Your task to perform on an android device: Open Google Maps and go to "Timeline" Image 0: 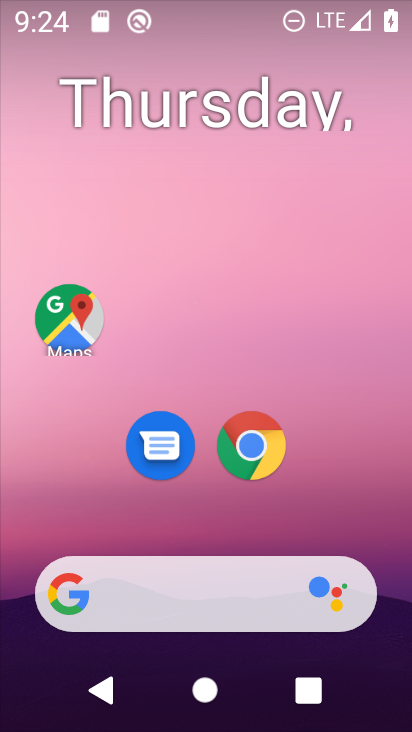
Step 0: drag from (402, 597) to (354, 122)
Your task to perform on an android device: Open Google Maps and go to "Timeline" Image 1: 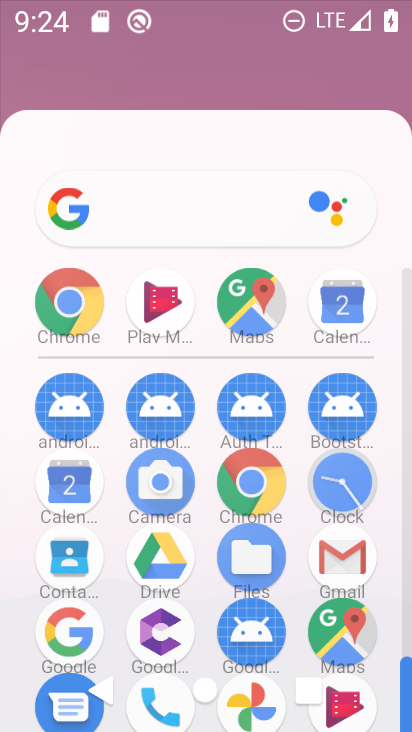
Step 1: click (329, 58)
Your task to perform on an android device: Open Google Maps and go to "Timeline" Image 2: 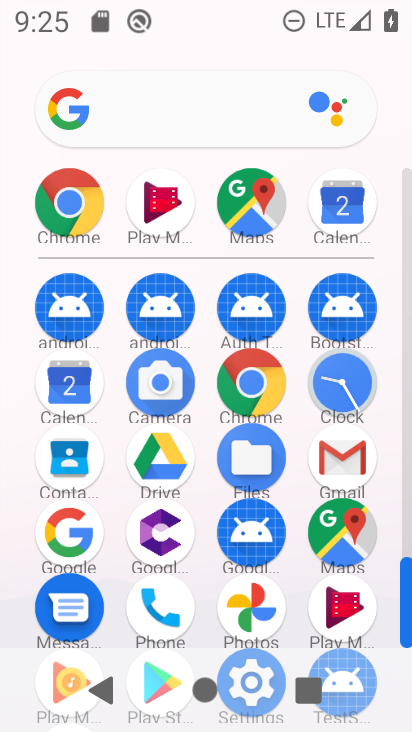
Step 2: click (348, 533)
Your task to perform on an android device: Open Google Maps and go to "Timeline" Image 3: 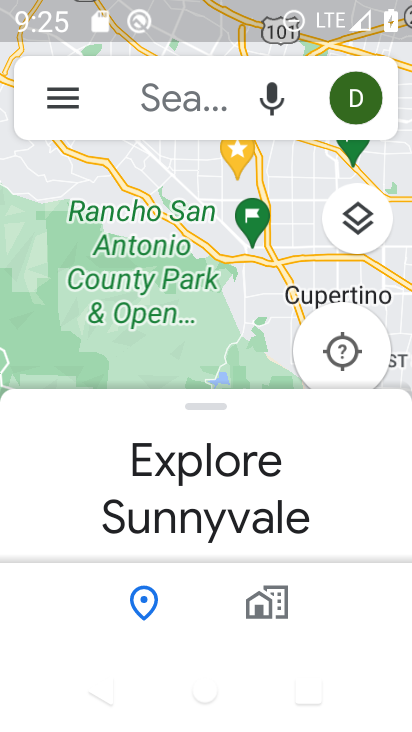
Step 3: click (60, 110)
Your task to perform on an android device: Open Google Maps and go to "Timeline" Image 4: 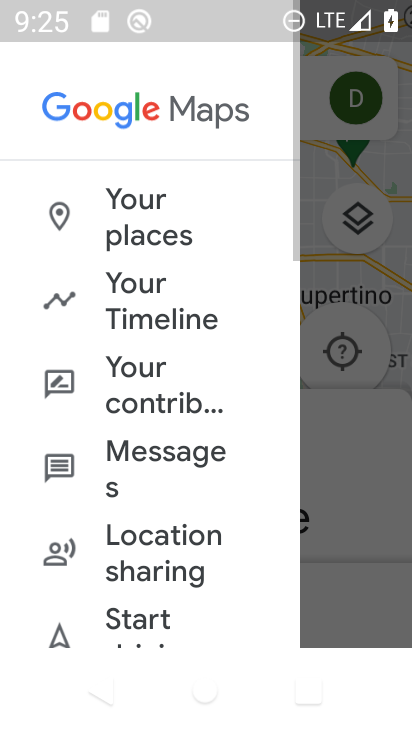
Step 4: click (156, 291)
Your task to perform on an android device: Open Google Maps and go to "Timeline" Image 5: 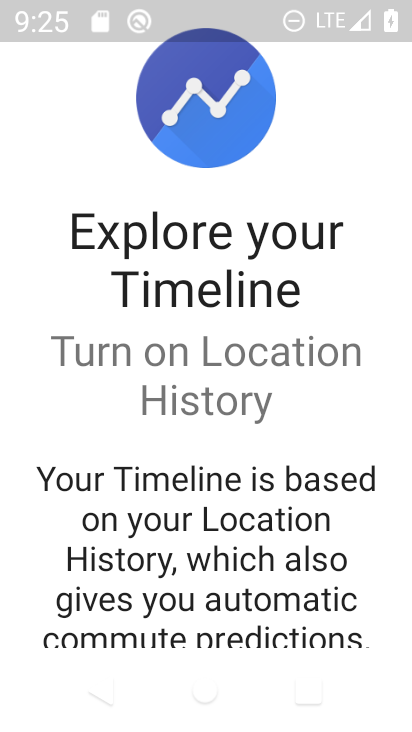
Step 5: task complete